Your task to perform on an android device: Open Youtube and go to "Your channel" Image 0: 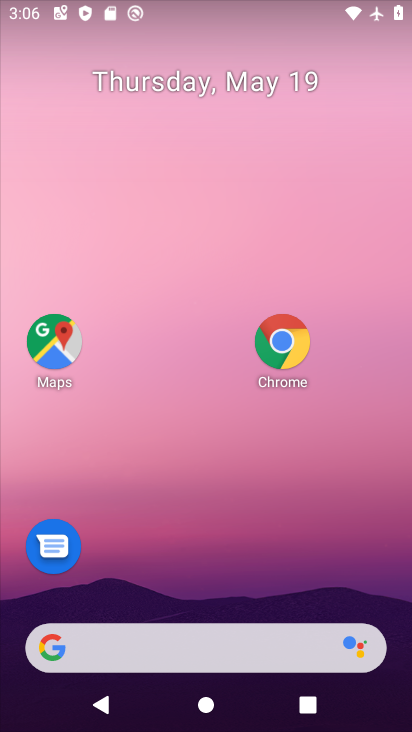
Step 0: press home button
Your task to perform on an android device: Open Youtube and go to "Your channel" Image 1: 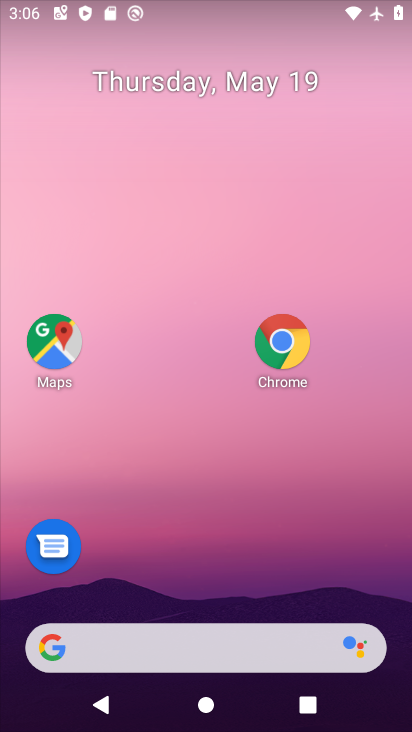
Step 1: drag from (162, 653) to (323, 182)
Your task to perform on an android device: Open Youtube and go to "Your channel" Image 2: 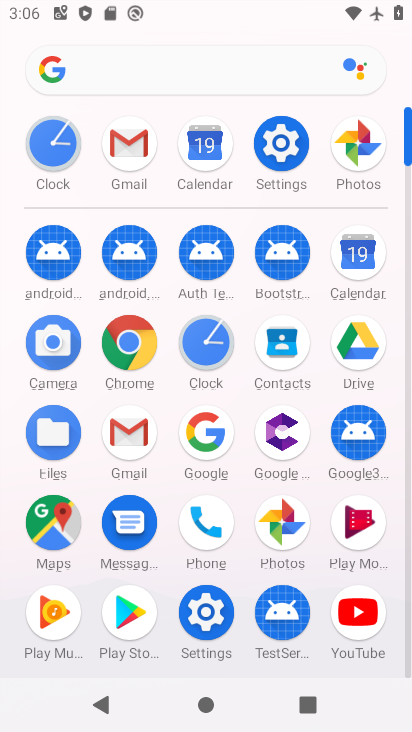
Step 2: click (359, 627)
Your task to perform on an android device: Open Youtube and go to "Your channel" Image 3: 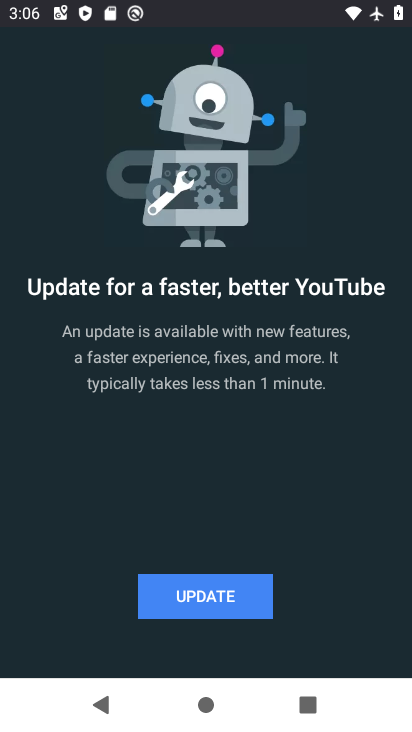
Step 3: click (236, 586)
Your task to perform on an android device: Open Youtube and go to "Your channel" Image 4: 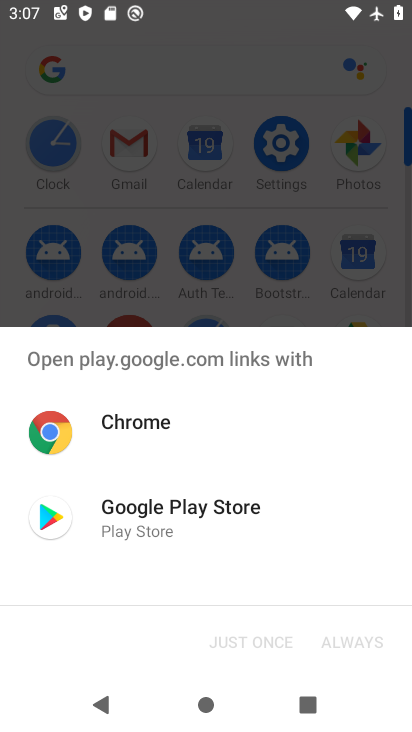
Step 4: click (208, 510)
Your task to perform on an android device: Open Youtube and go to "Your channel" Image 5: 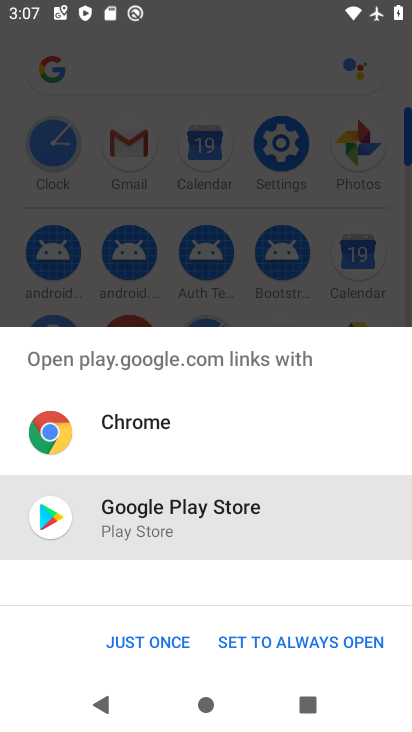
Step 5: click (222, 640)
Your task to perform on an android device: Open Youtube and go to "Your channel" Image 6: 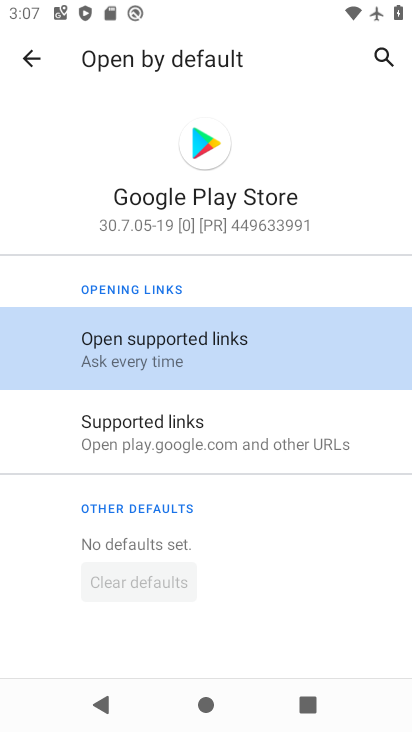
Step 6: click (28, 54)
Your task to perform on an android device: Open Youtube and go to "Your channel" Image 7: 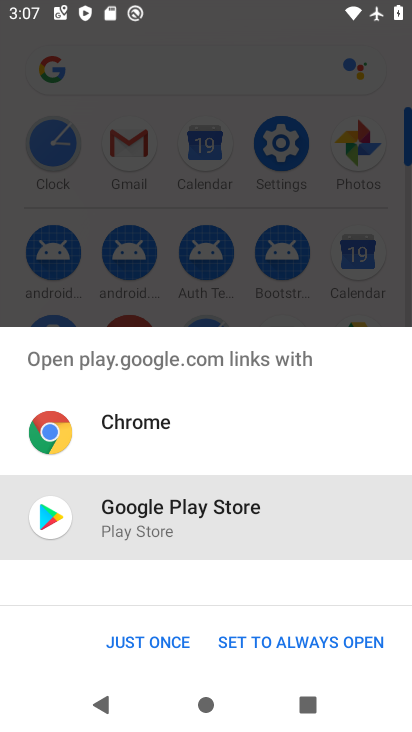
Step 7: click (158, 641)
Your task to perform on an android device: Open Youtube and go to "Your channel" Image 8: 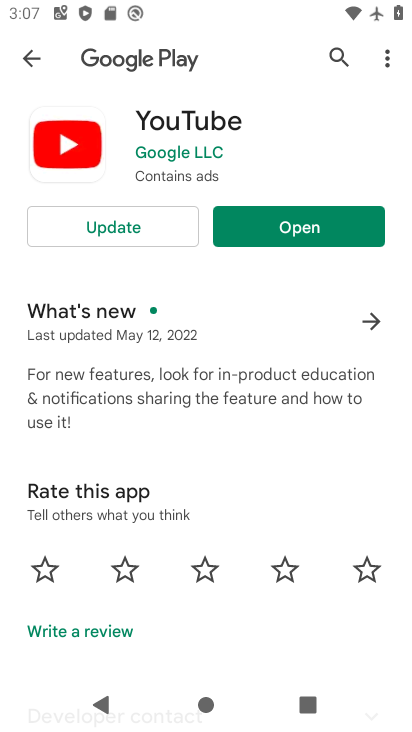
Step 8: click (144, 216)
Your task to perform on an android device: Open Youtube and go to "Your channel" Image 9: 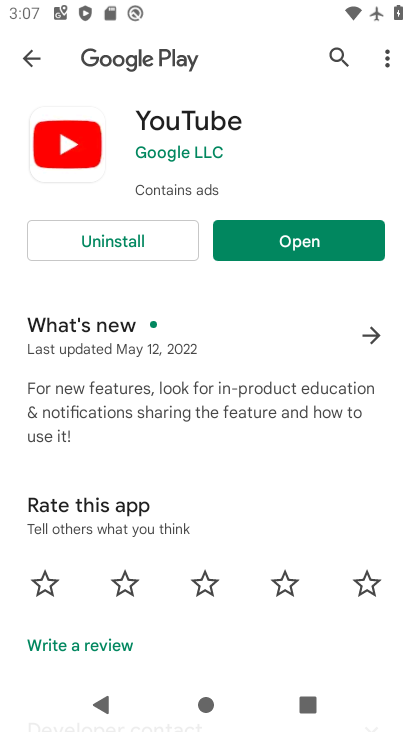
Step 9: click (315, 252)
Your task to perform on an android device: Open Youtube and go to "Your channel" Image 10: 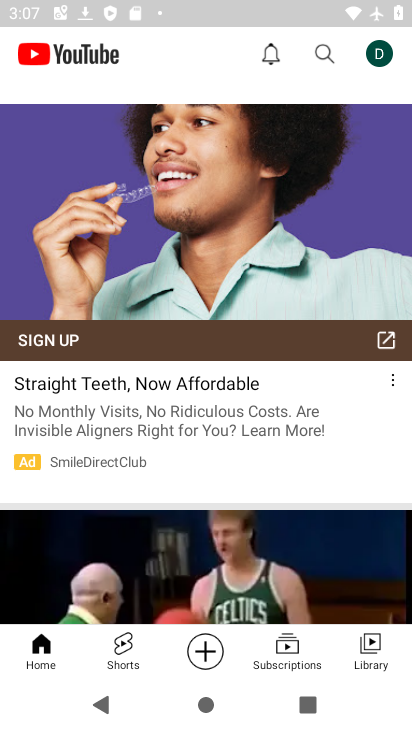
Step 10: click (386, 55)
Your task to perform on an android device: Open Youtube and go to "Your channel" Image 11: 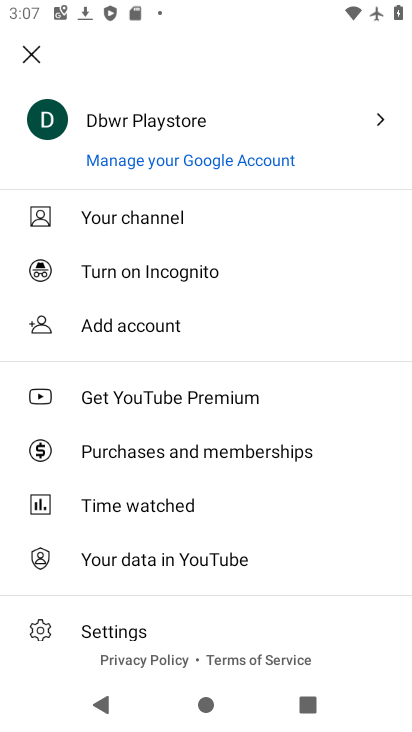
Step 11: click (160, 226)
Your task to perform on an android device: Open Youtube and go to "Your channel" Image 12: 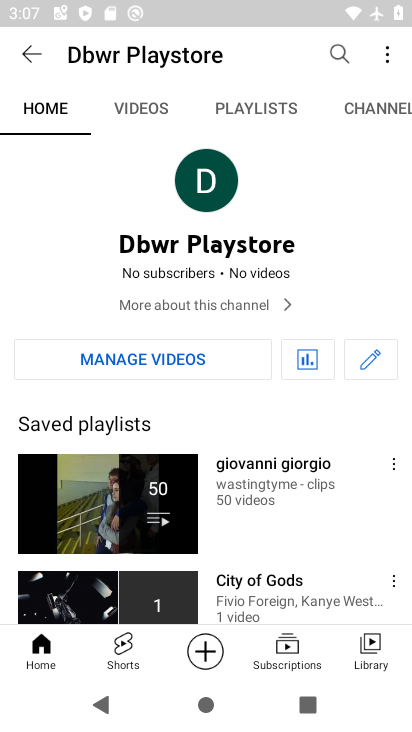
Step 12: task complete